Your task to perform on an android device: turn vacation reply on in the gmail app Image 0: 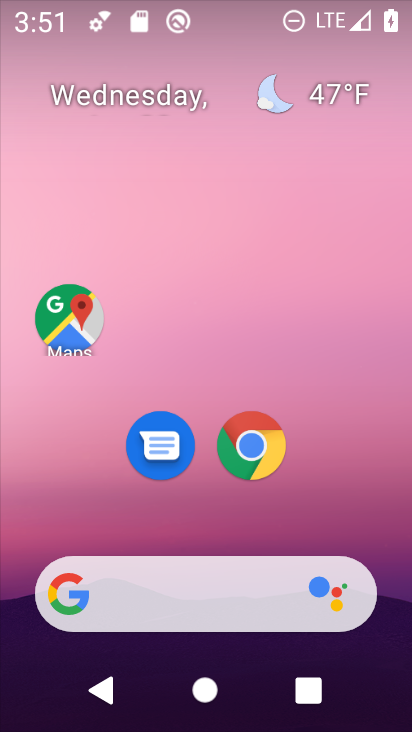
Step 0: drag from (243, 542) to (319, 56)
Your task to perform on an android device: turn vacation reply on in the gmail app Image 1: 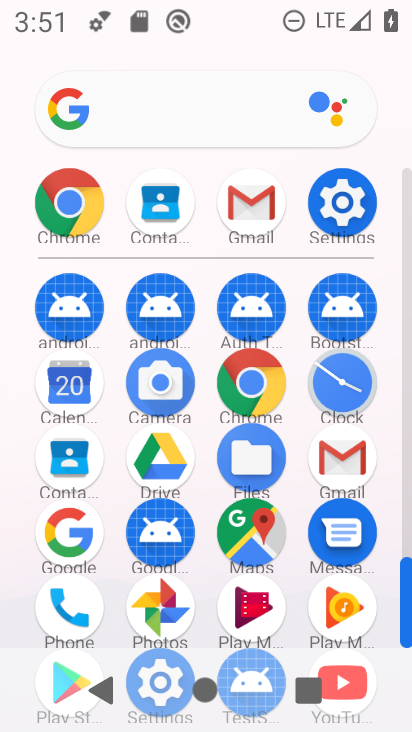
Step 1: click (253, 203)
Your task to perform on an android device: turn vacation reply on in the gmail app Image 2: 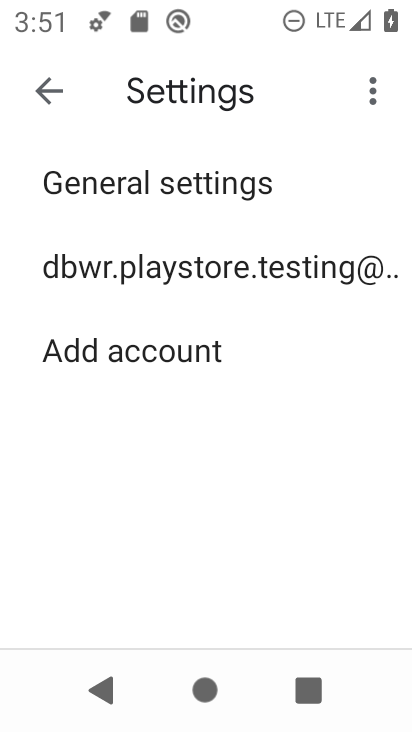
Step 2: click (234, 271)
Your task to perform on an android device: turn vacation reply on in the gmail app Image 3: 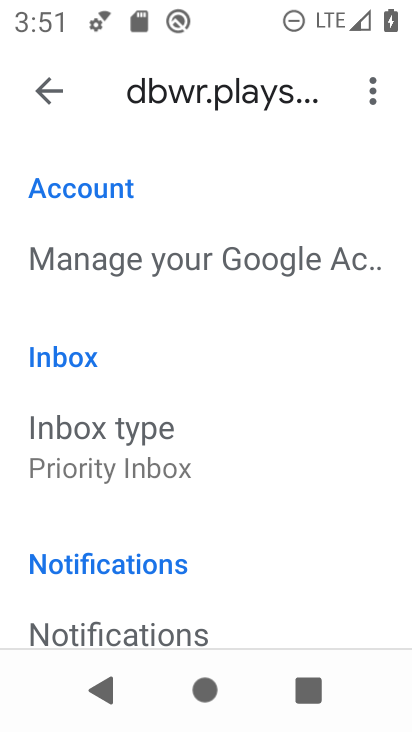
Step 3: drag from (219, 488) to (241, 332)
Your task to perform on an android device: turn vacation reply on in the gmail app Image 4: 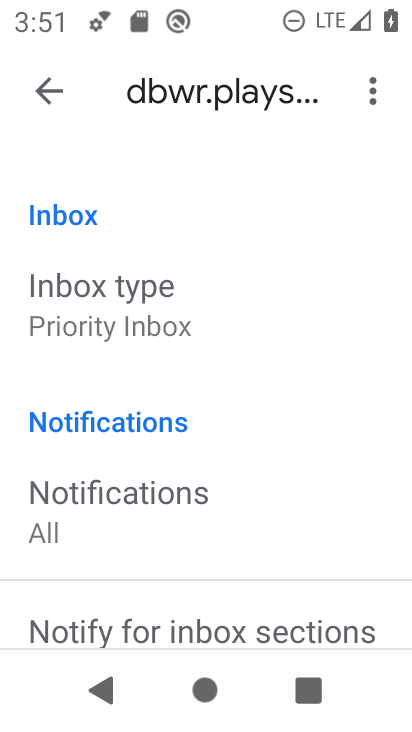
Step 4: drag from (235, 492) to (259, 335)
Your task to perform on an android device: turn vacation reply on in the gmail app Image 5: 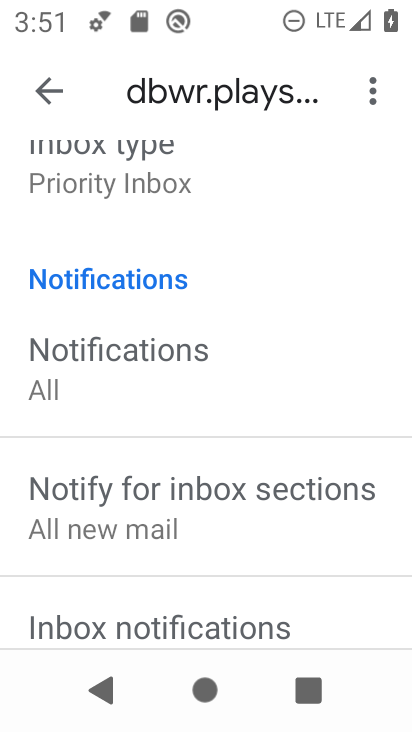
Step 5: drag from (215, 535) to (267, 378)
Your task to perform on an android device: turn vacation reply on in the gmail app Image 6: 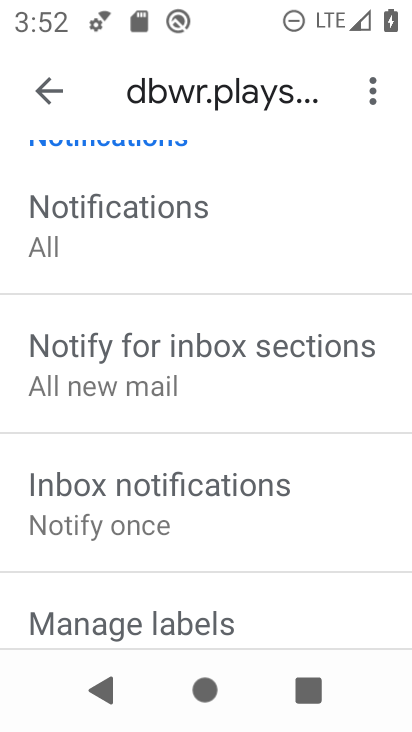
Step 6: drag from (237, 543) to (269, 388)
Your task to perform on an android device: turn vacation reply on in the gmail app Image 7: 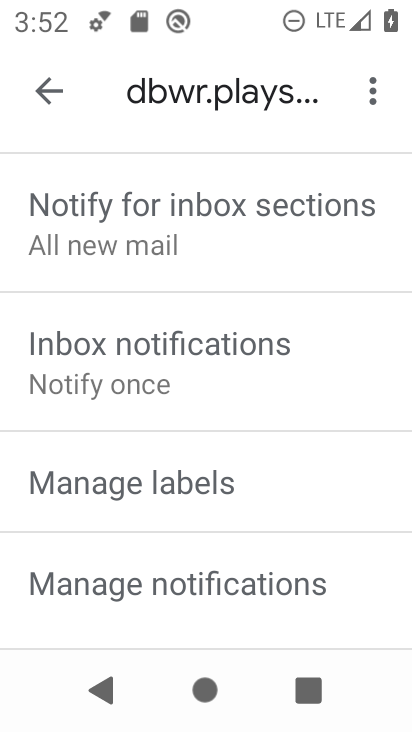
Step 7: drag from (265, 516) to (289, 396)
Your task to perform on an android device: turn vacation reply on in the gmail app Image 8: 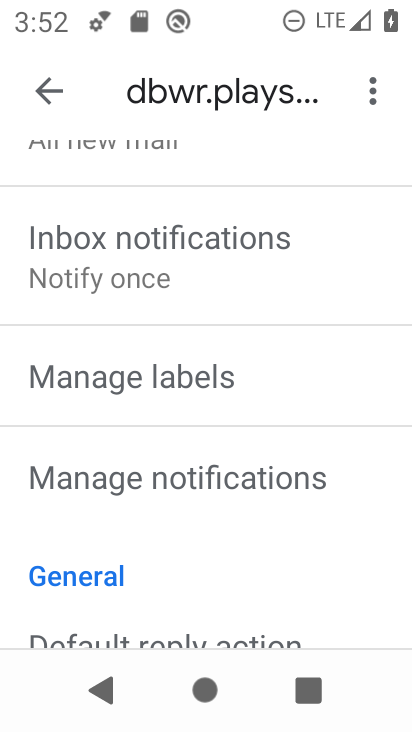
Step 8: drag from (226, 543) to (311, 364)
Your task to perform on an android device: turn vacation reply on in the gmail app Image 9: 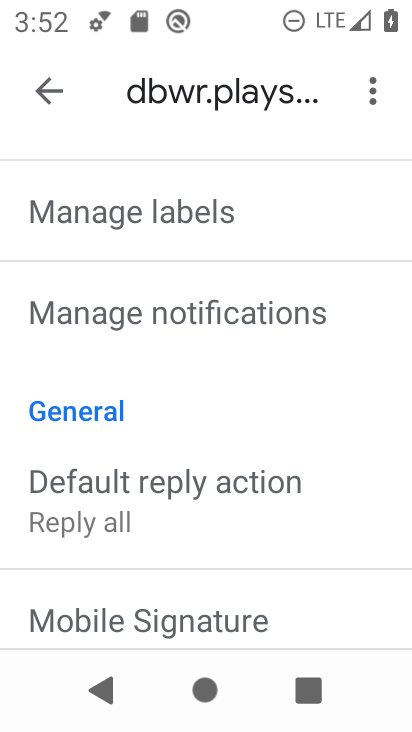
Step 9: drag from (238, 522) to (306, 363)
Your task to perform on an android device: turn vacation reply on in the gmail app Image 10: 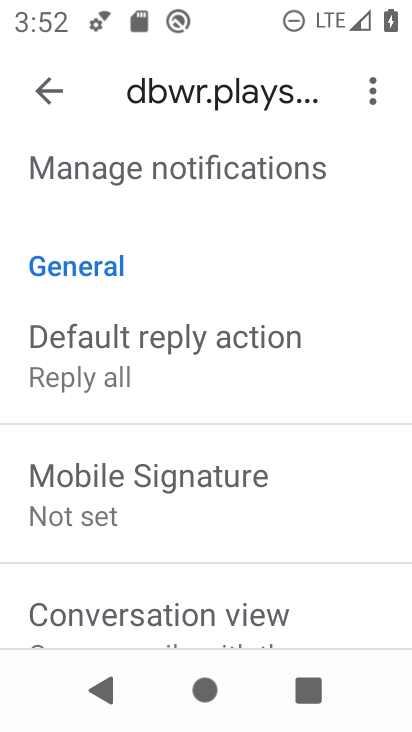
Step 10: drag from (219, 539) to (274, 381)
Your task to perform on an android device: turn vacation reply on in the gmail app Image 11: 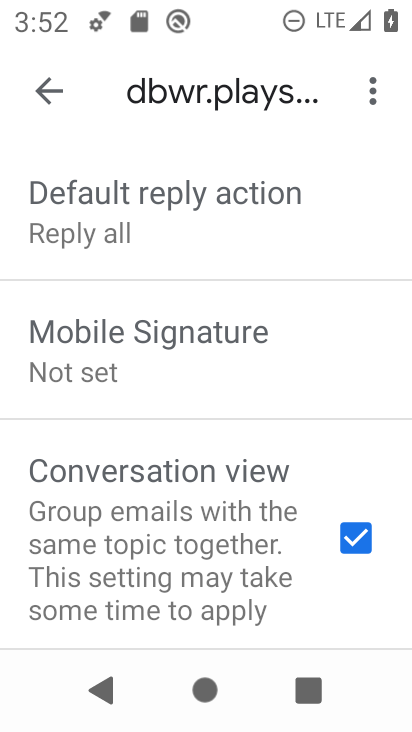
Step 11: drag from (184, 608) to (269, 375)
Your task to perform on an android device: turn vacation reply on in the gmail app Image 12: 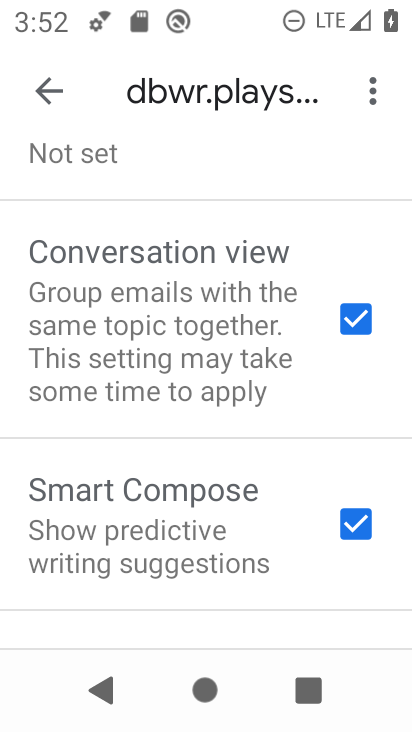
Step 12: drag from (205, 562) to (297, 380)
Your task to perform on an android device: turn vacation reply on in the gmail app Image 13: 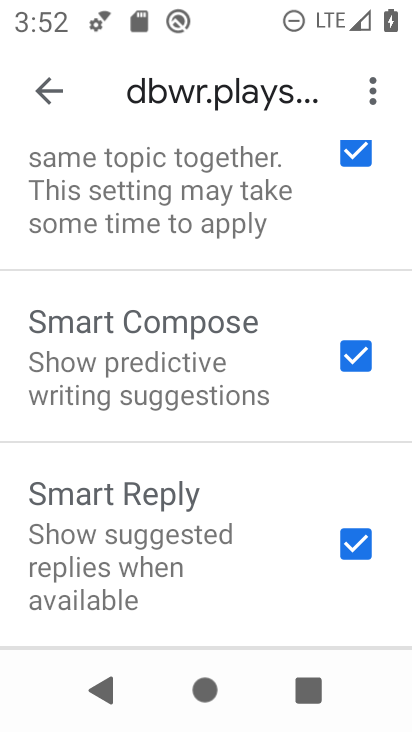
Step 13: drag from (232, 583) to (302, 390)
Your task to perform on an android device: turn vacation reply on in the gmail app Image 14: 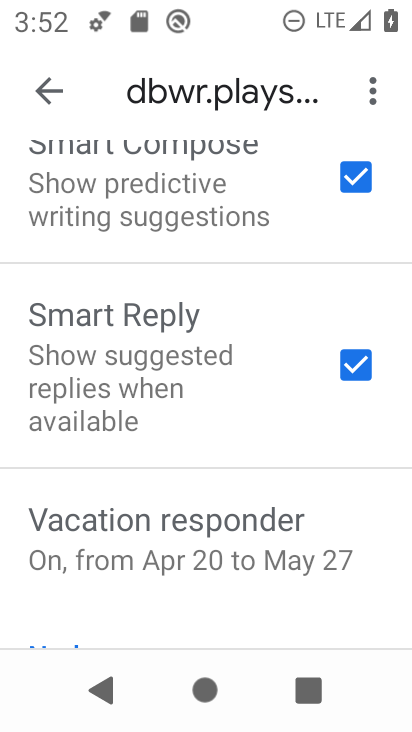
Step 14: click (244, 530)
Your task to perform on an android device: turn vacation reply on in the gmail app Image 15: 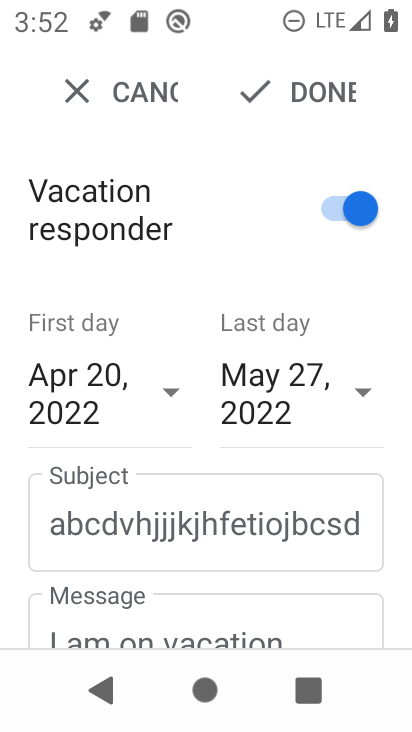
Step 15: task complete